Your task to perform on an android device: change the clock display to show seconds Image 0: 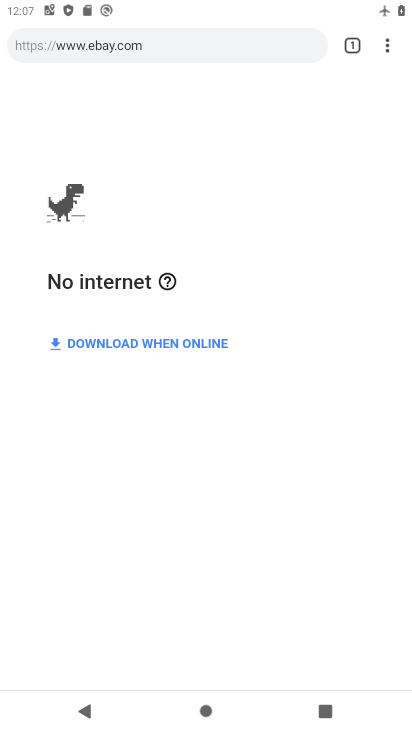
Step 0: press home button
Your task to perform on an android device: change the clock display to show seconds Image 1: 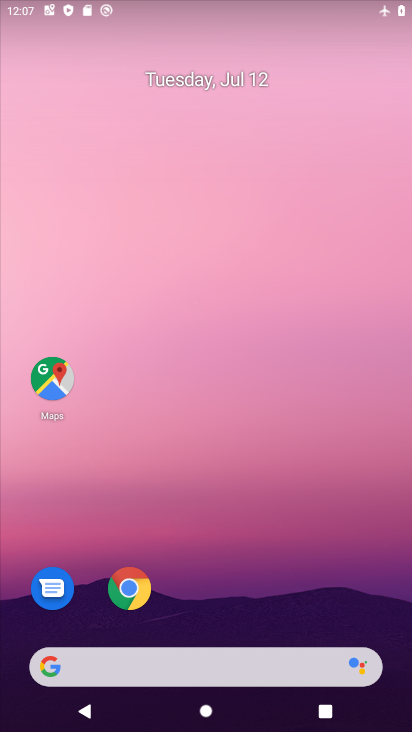
Step 1: drag from (322, 547) to (280, 118)
Your task to perform on an android device: change the clock display to show seconds Image 2: 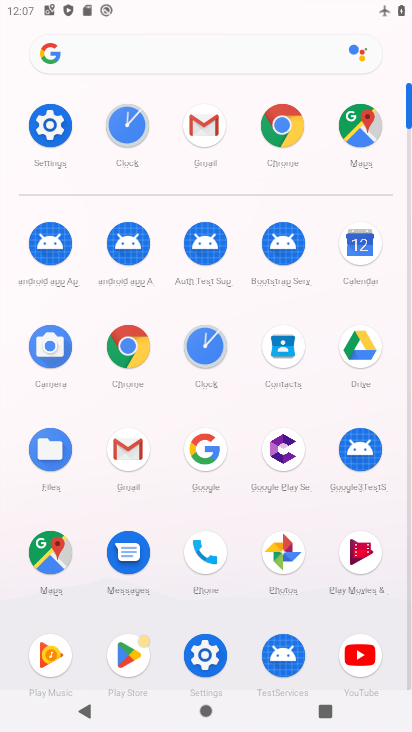
Step 2: click (213, 349)
Your task to perform on an android device: change the clock display to show seconds Image 3: 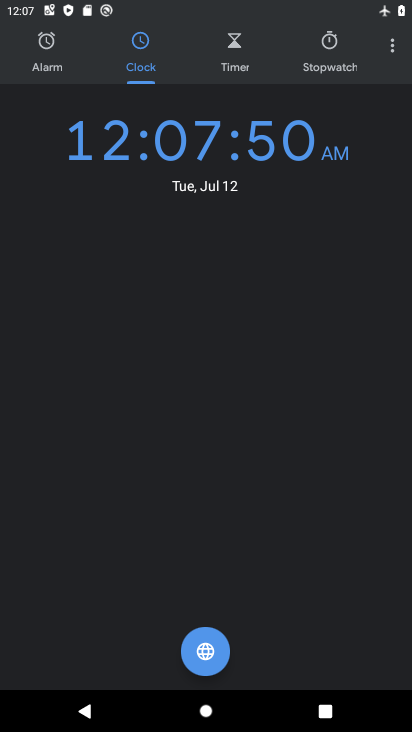
Step 3: click (394, 50)
Your task to perform on an android device: change the clock display to show seconds Image 4: 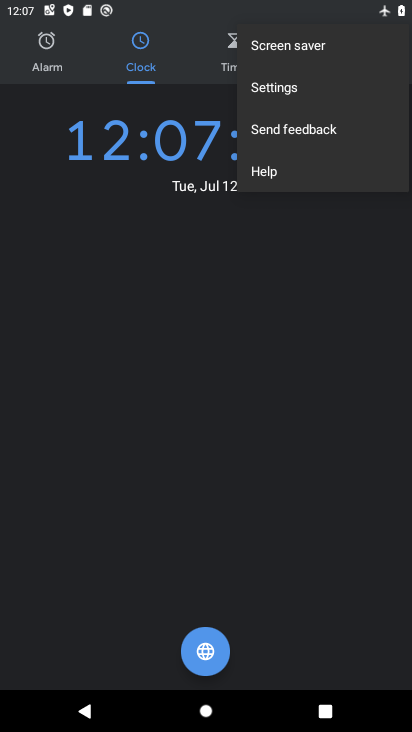
Step 4: click (295, 87)
Your task to perform on an android device: change the clock display to show seconds Image 5: 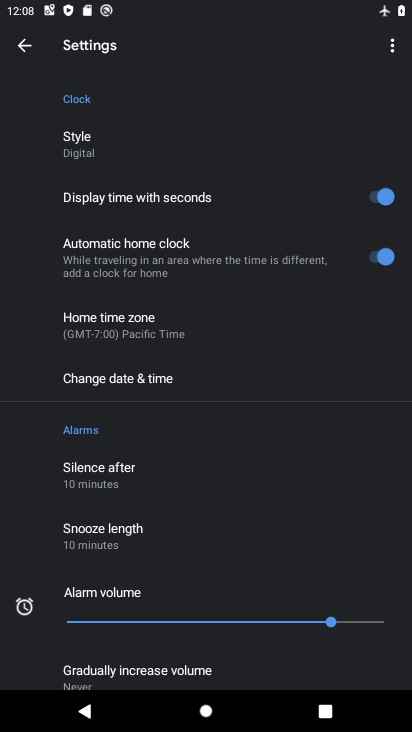
Step 5: task complete